Your task to perform on an android device: check storage Image 0: 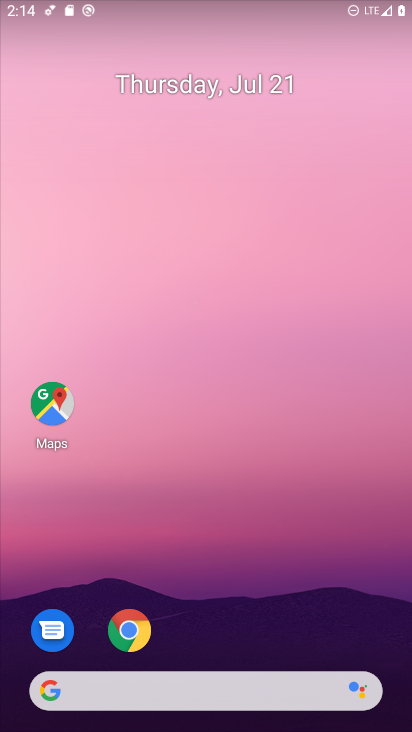
Step 0: drag from (346, 605) to (397, 80)
Your task to perform on an android device: check storage Image 1: 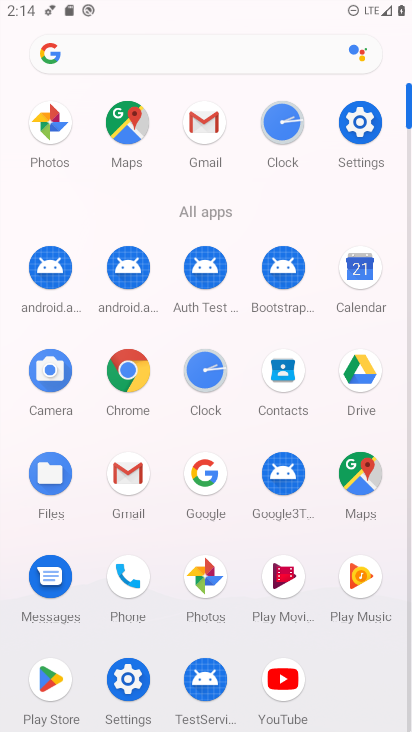
Step 1: click (131, 685)
Your task to perform on an android device: check storage Image 2: 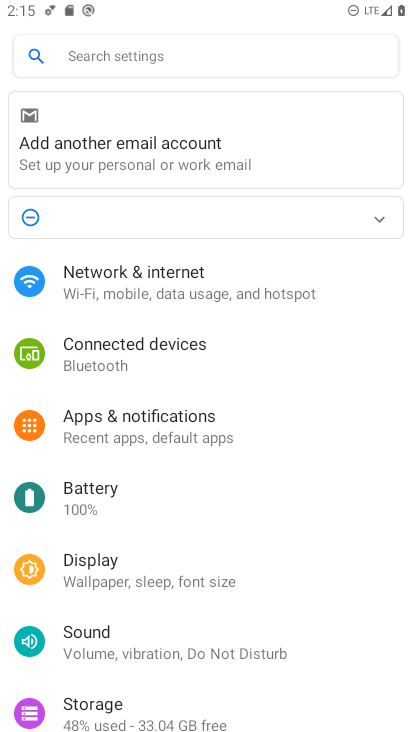
Step 2: click (131, 701)
Your task to perform on an android device: check storage Image 3: 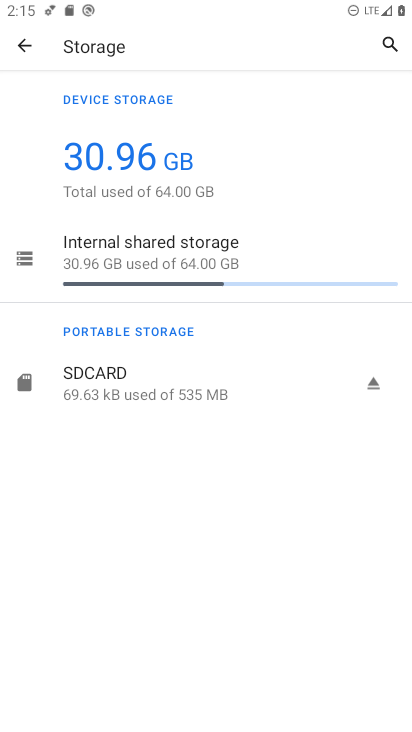
Step 3: task complete